Your task to perform on an android device: turn on data saver in the chrome app Image 0: 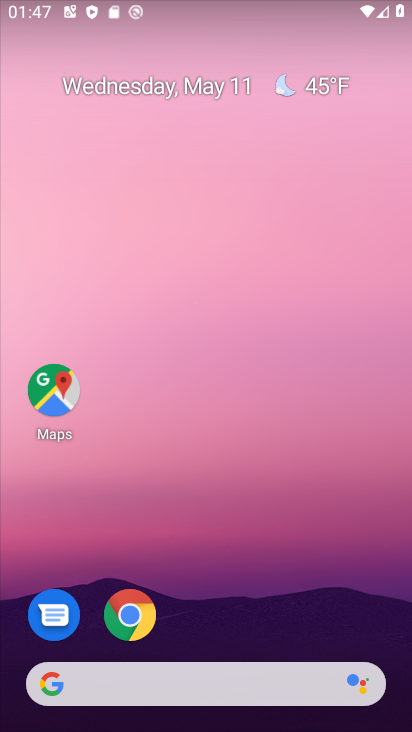
Step 0: drag from (361, 607) to (326, 181)
Your task to perform on an android device: turn on data saver in the chrome app Image 1: 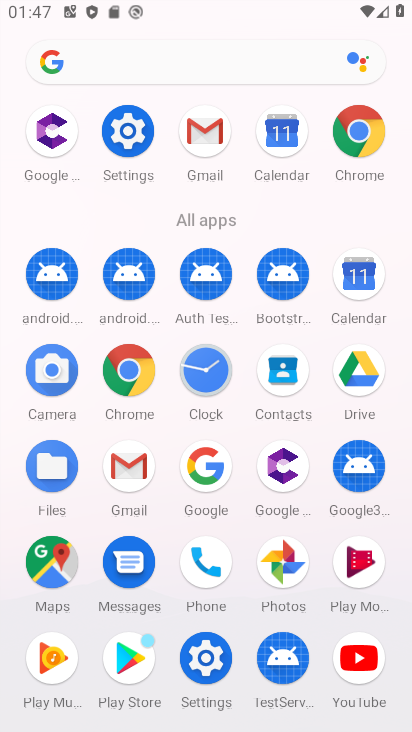
Step 1: click (116, 377)
Your task to perform on an android device: turn on data saver in the chrome app Image 2: 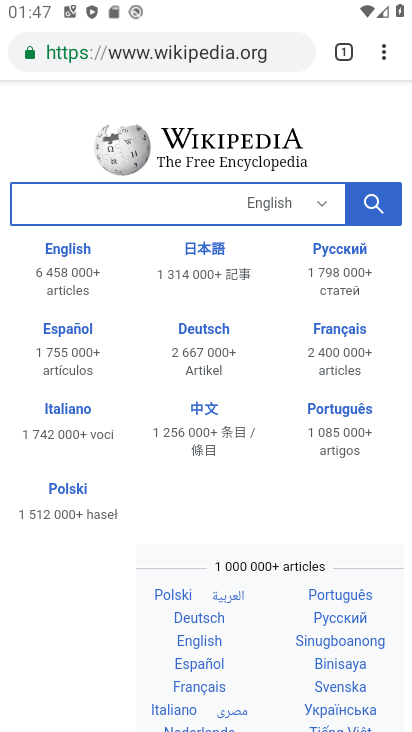
Step 2: drag from (387, 64) to (211, 634)
Your task to perform on an android device: turn on data saver in the chrome app Image 3: 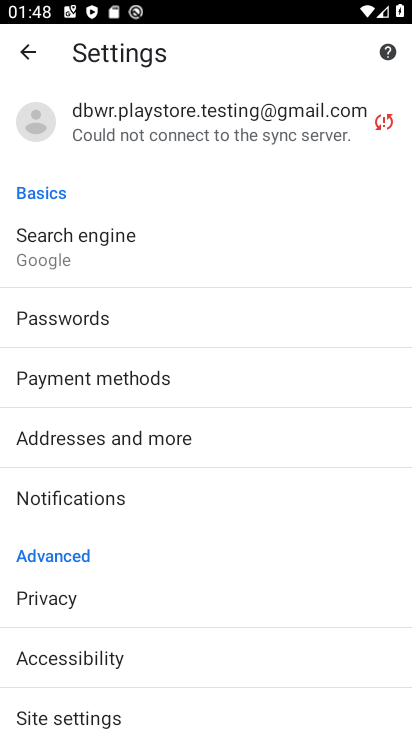
Step 3: drag from (192, 663) to (265, 265)
Your task to perform on an android device: turn on data saver in the chrome app Image 4: 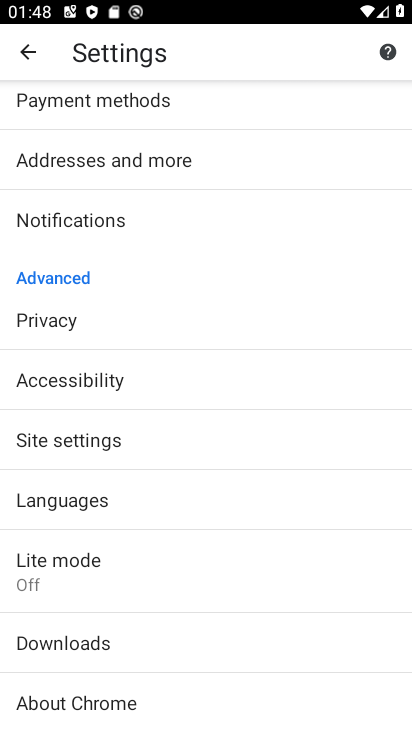
Step 4: click (189, 563)
Your task to perform on an android device: turn on data saver in the chrome app Image 5: 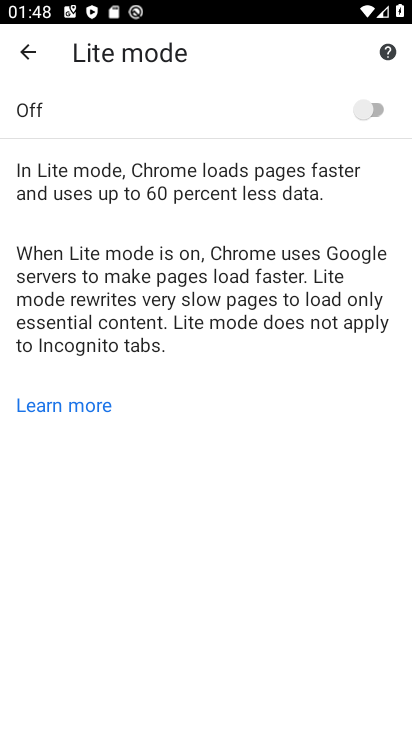
Step 5: click (378, 106)
Your task to perform on an android device: turn on data saver in the chrome app Image 6: 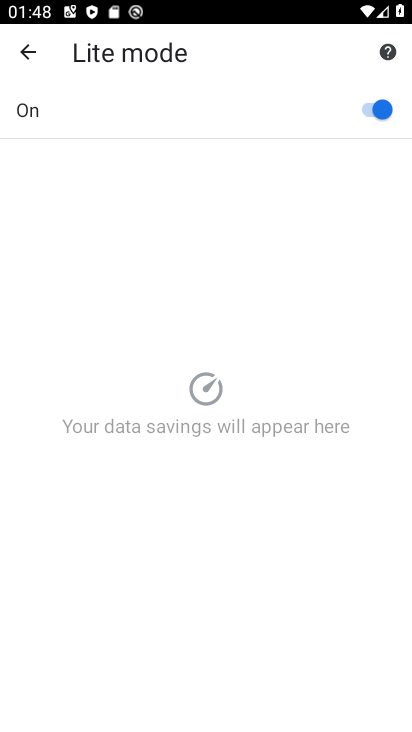
Step 6: task complete